Your task to perform on an android device: Search for Italian restaurants on Maps Image 0: 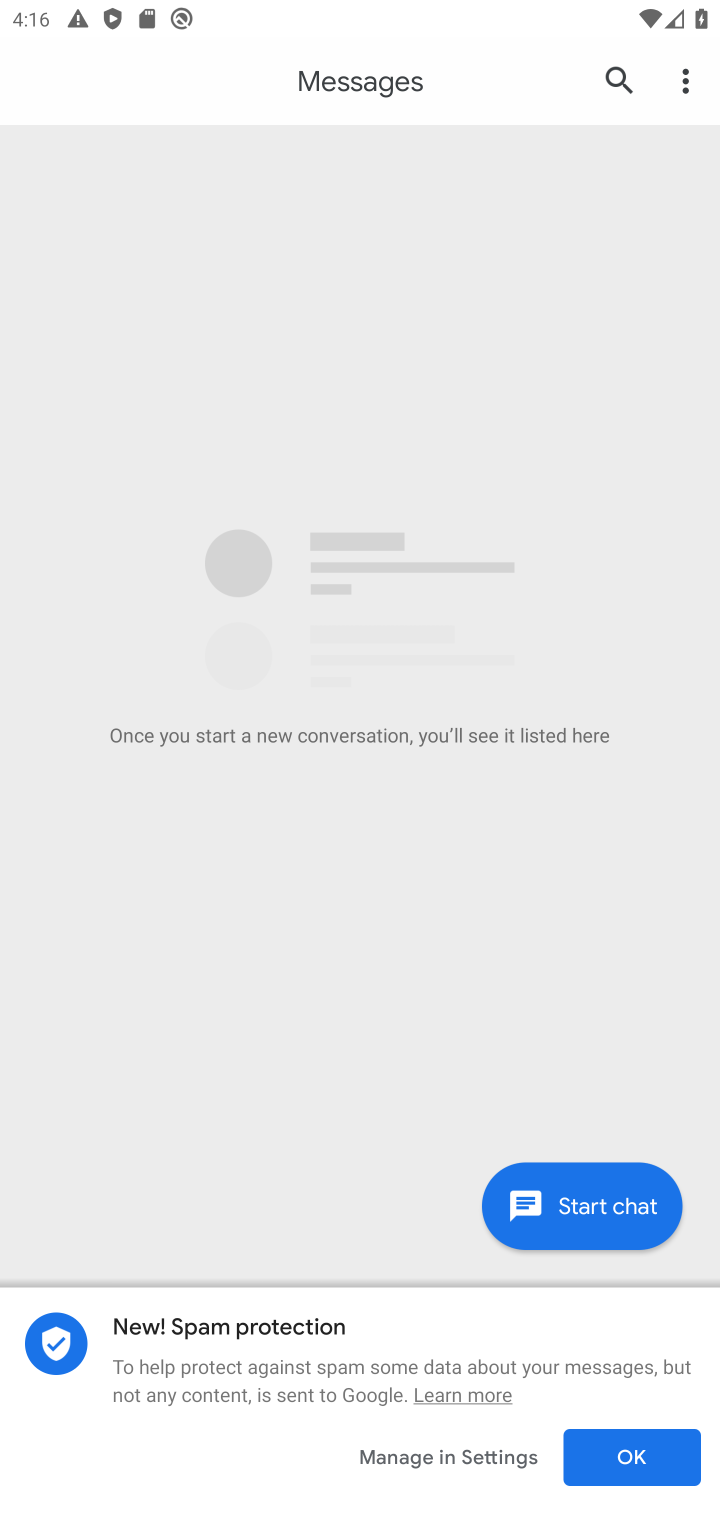
Step 0: press home button
Your task to perform on an android device: Search for Italian restaurants on Maps Image 1: 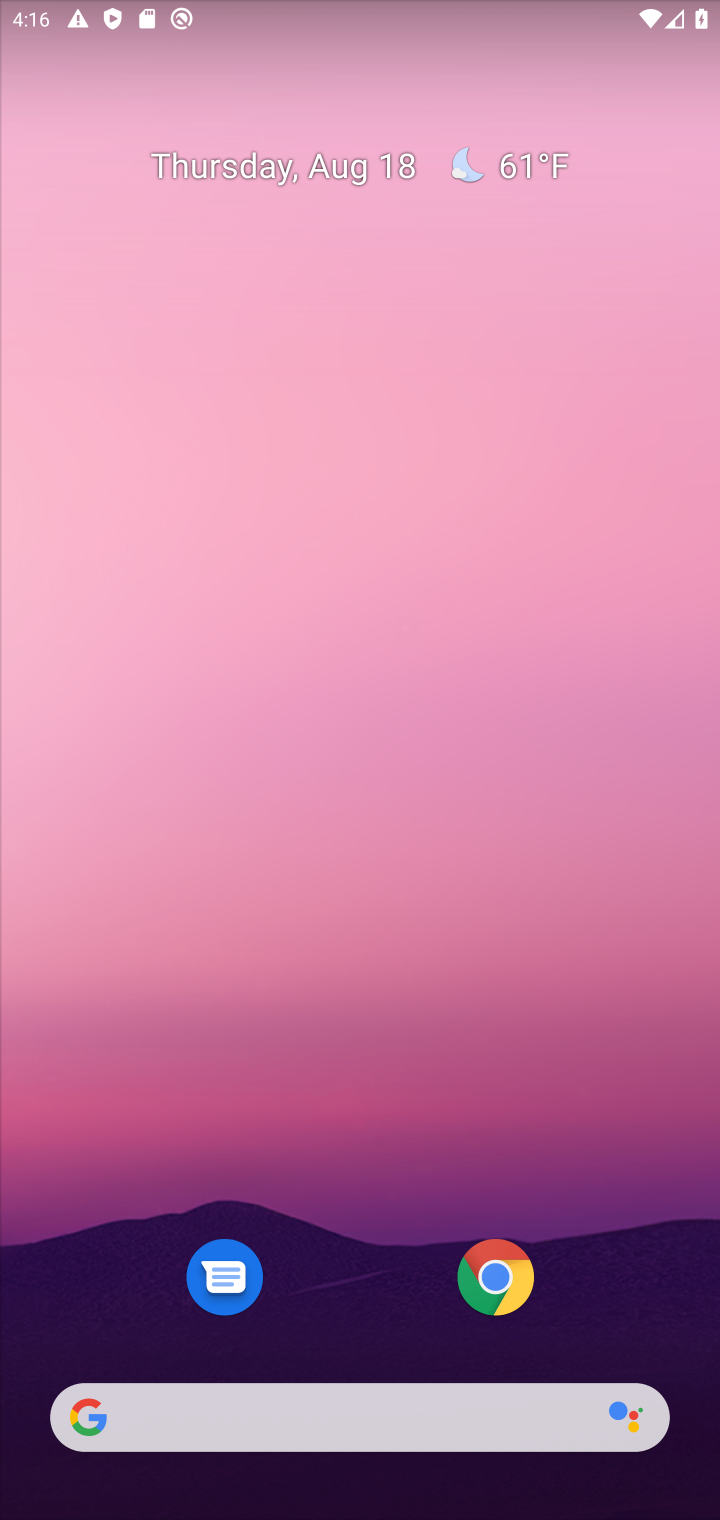
Step 1: task complete